Your task to perform on an android device: Open calendar and show me the fourth week of next month Image 0: 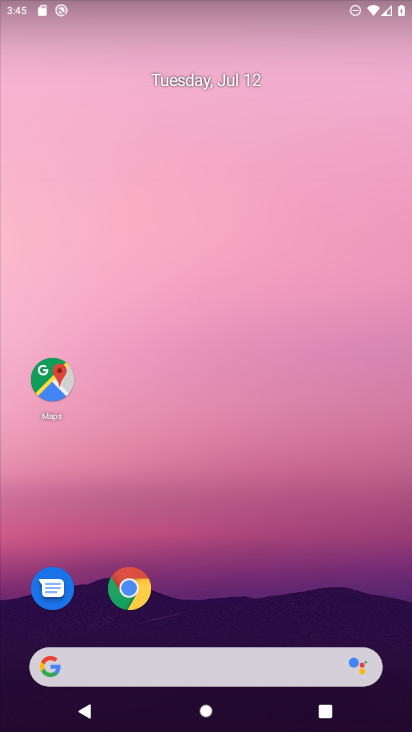
Step 0: drag from (254, 618) to (233, 40)
Your task to perform on an android device: Open calendar and show me the fourth week of next month Image 1: 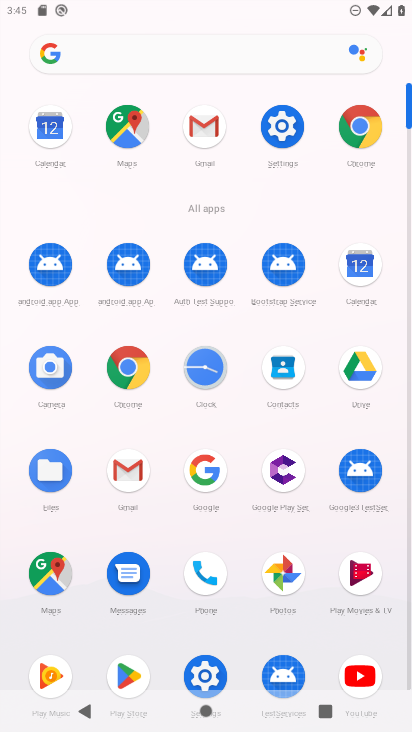
Step 1: click (356, 265)
Your task to perform on an android device: Open calendar and show me the fourth week of next month Image 2: 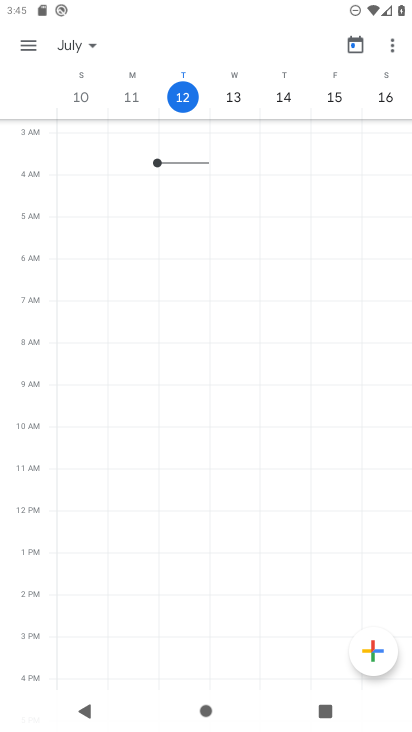
Step 2: click (95, 50)
Your task to perform on an android device: Open calendar and show me the fourth week of next month Image 3: 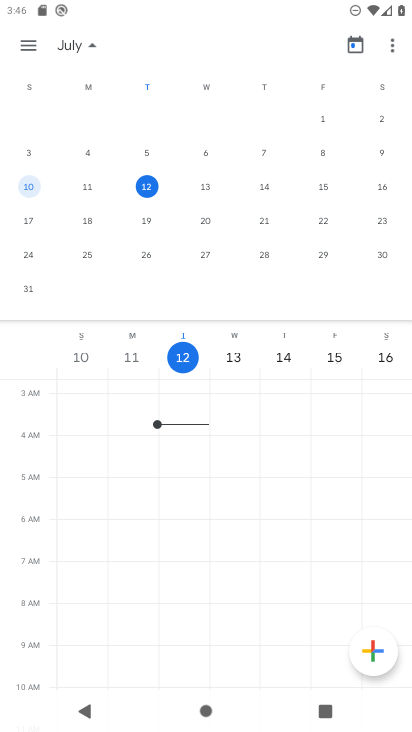
Step 3: drag from (392, 230) to (7, 281)
Your task to perform on an android device: Open calendar and show me the fourth week of next month Image 4: 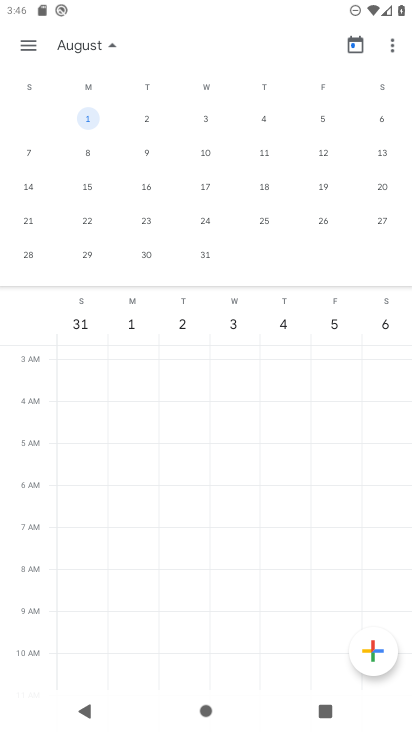
Step 4: click (205, 222)
Your task to perform on an android device: Open calendar and show me the fourth week of next month Image 5: 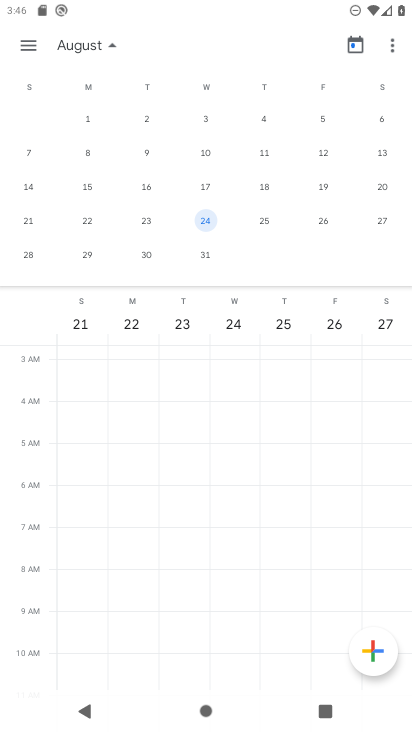
Step 5: task complete